Your task to perform on an android device: see creations saved in the google photos Image 0: 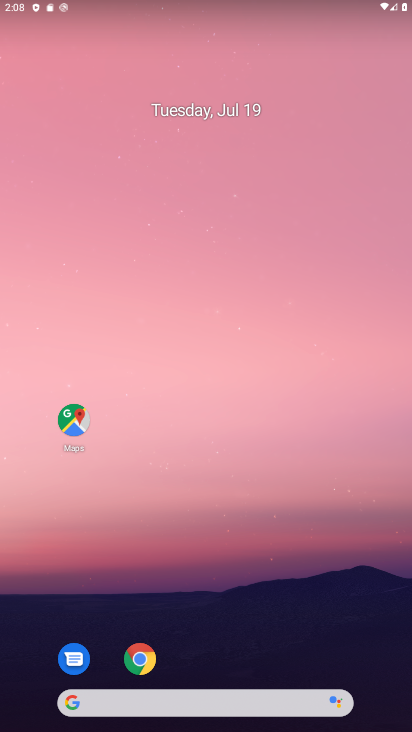
Step 0: drag from (349, 624) to (309, 148)
Your task to perform on an android device: see creations saved in the google photos Image 1: 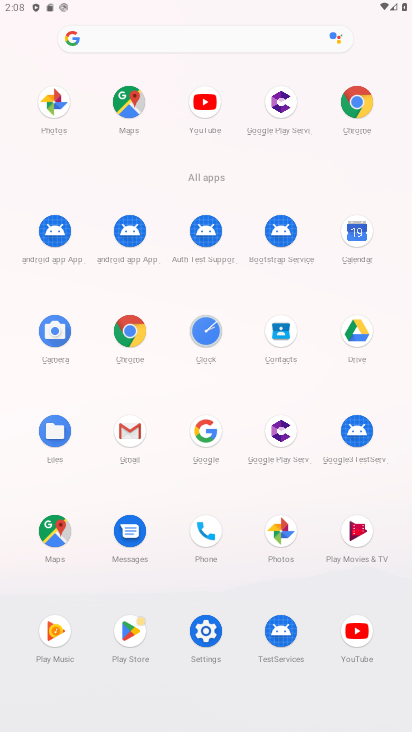
Step 1: click (40, 111)
Your task to perform on an android device: see creations saved in the google photos Image 2: 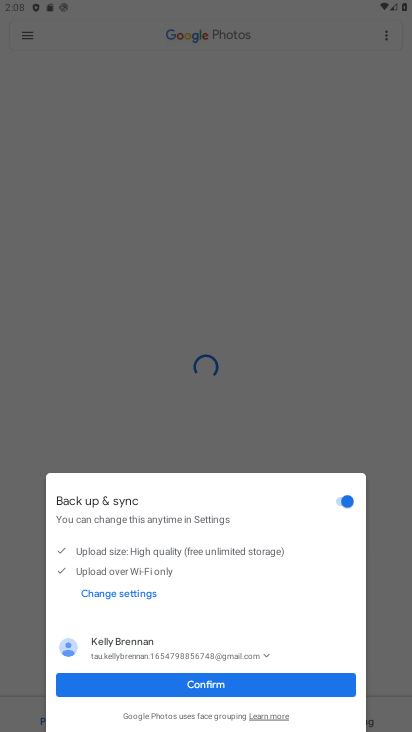
Step 2: click (275, 685)
Your task to perform on an android device: see creations saved in the google photos Image 3: 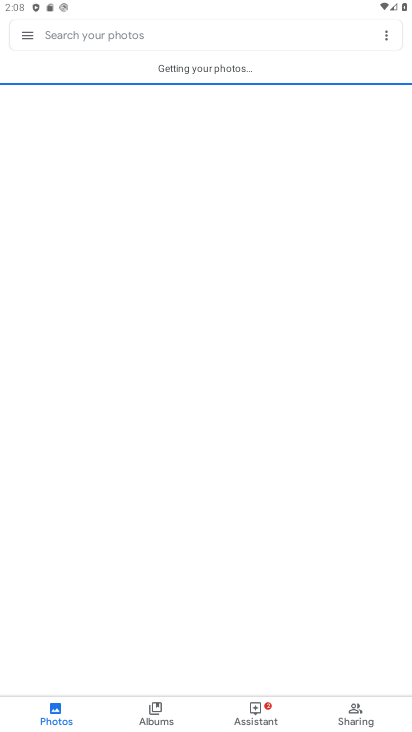
Step 3: click (181, 35)
Your task to perform on an android device: see creations saved in the google photos Image 4: 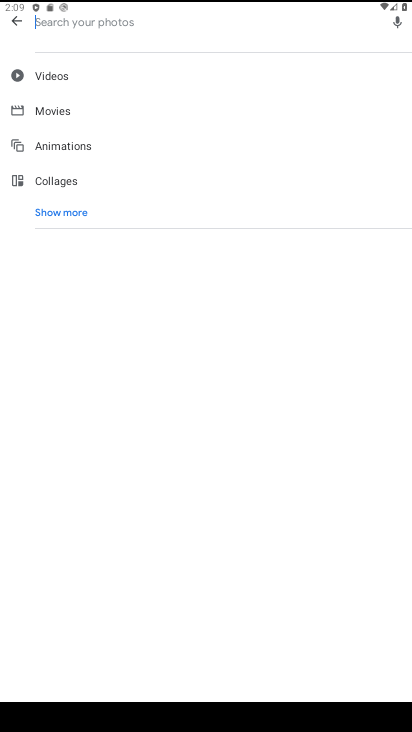
Step 4: click (64, 218)
Your task to perform on an android device: see creations saved in the google photos Image 5: 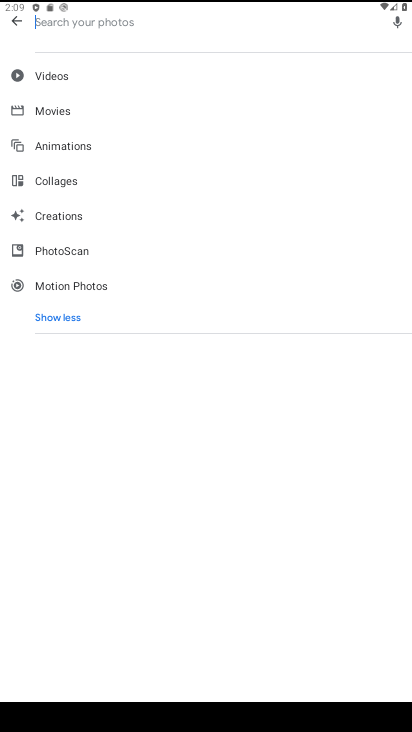
Step 5: click (64, 218)
Your task to perform on an android device: see creations saved in the google photos Image 6: 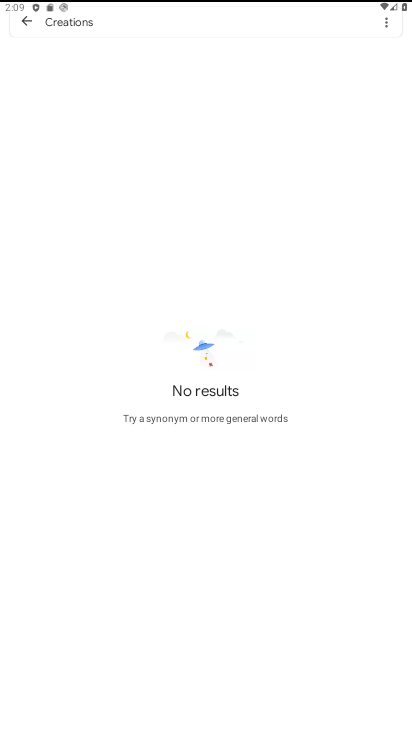
Step 6: task complete